Your task to perform on an android device: refresh tabs in the chrome app Image 0: 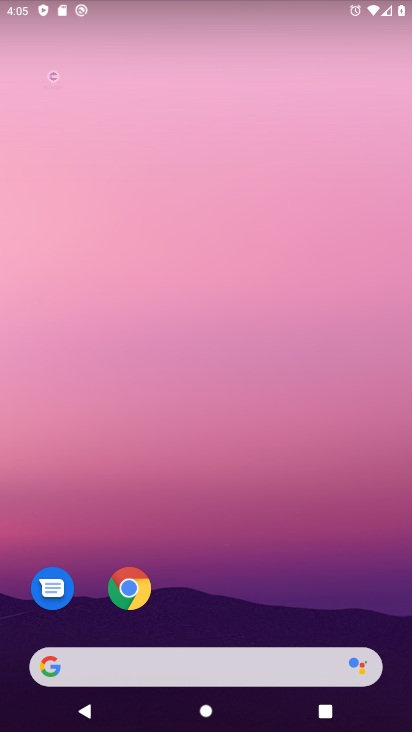
Step 0: click (130, 590)
Your task to perform on an android device: refresh tabs in the chrome app Image 1: 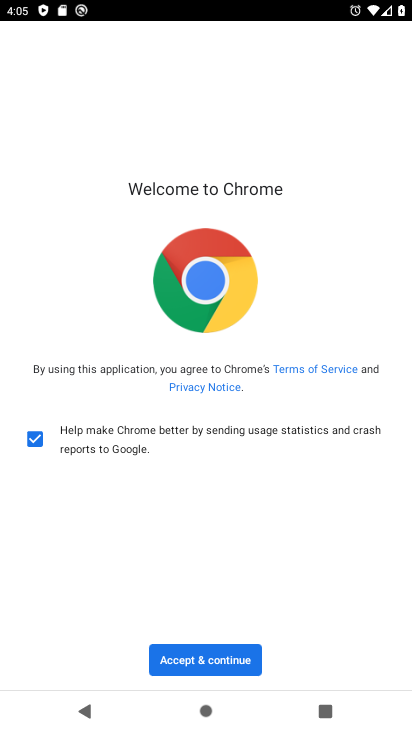
Step 1: click (174, 660)
Your task to perform on an android device: refresh tabs in the chrome app Image 2: 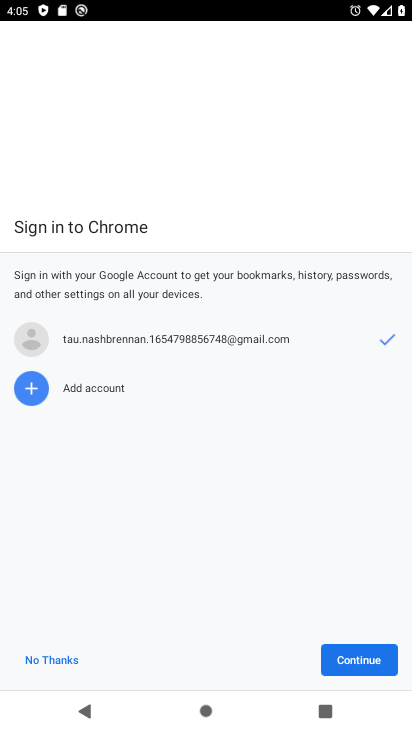
Step 2: click (340, 663)
Your task to perform on an android device: refresh tabs in the chrome app Image 3: 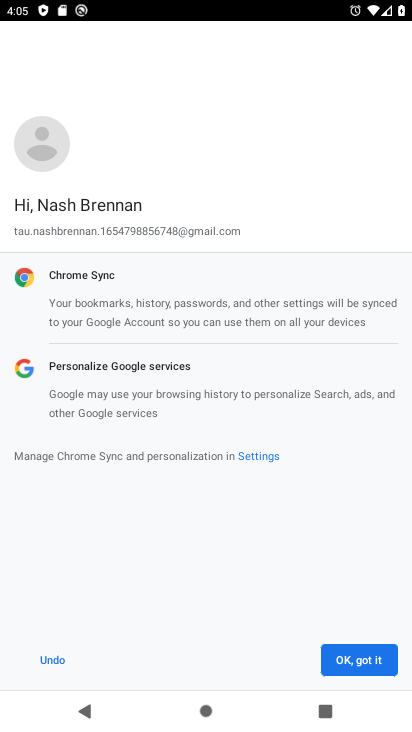
Step 3: click (361, 663)
Your task to perform on an android device: refresh tabs in the chrome app Image 4: 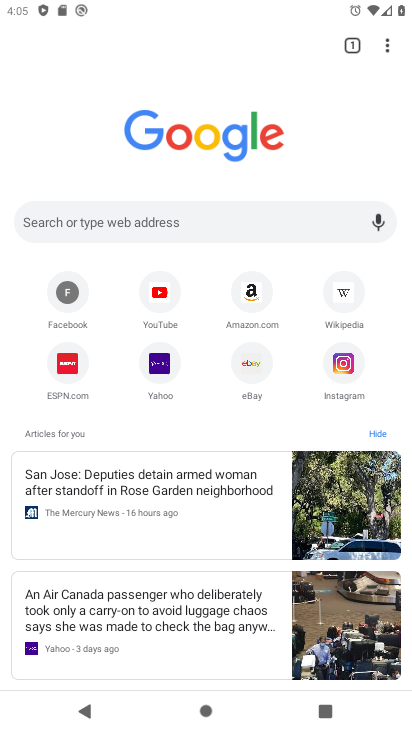
Step 4: click (386, 43)
Your task to perform on an android device: refresh tabs in the chrome app Image 5: 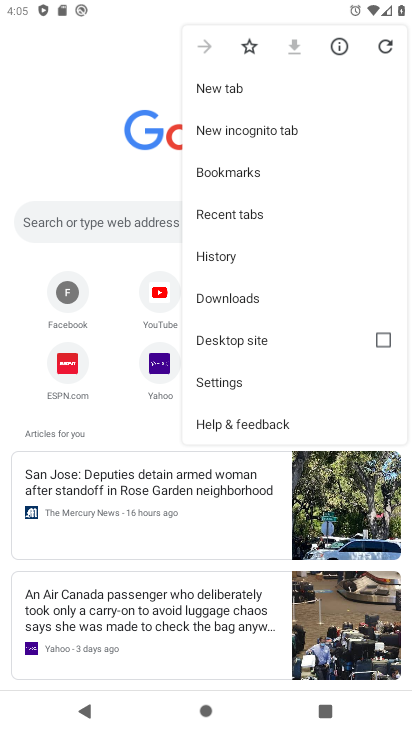
Step 5: click (386, 43)
Your task to perform on an android device: refresh tabs in the chrome app Image 6: 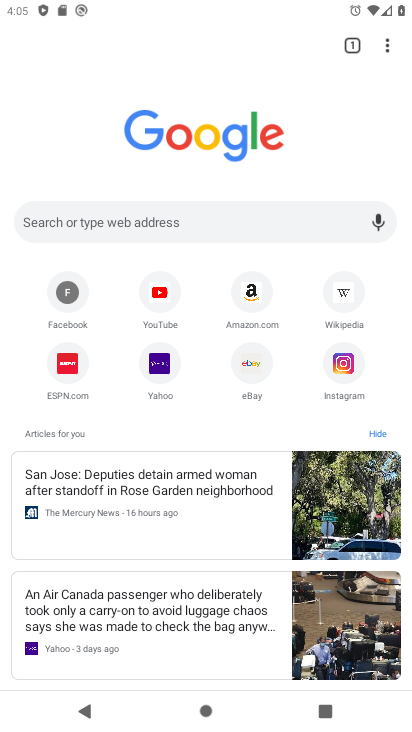
Step 6: task complete